Your task to perform on an android device: open a bookmark in the chrome app Image 0: 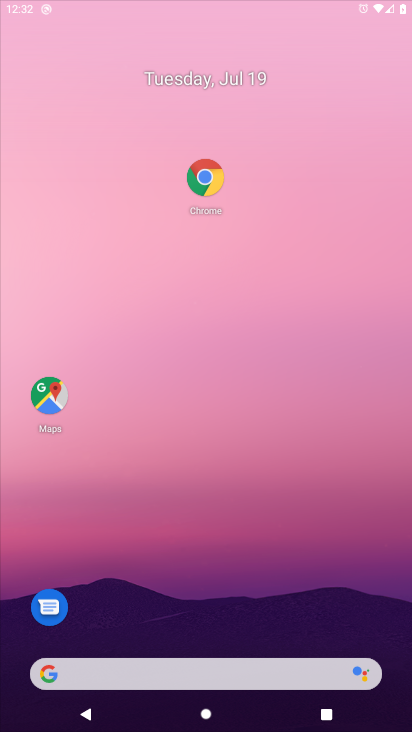
Step 0: click (128, 665)
Your task to perform on an android device: open a bookmark in the chrome app Image 1: 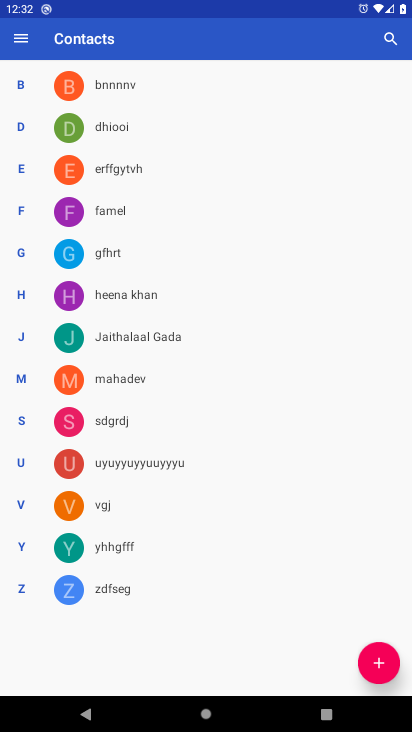
Step 1: press home button
Your task to perform on an android device: open a bookmark in the chrome app Image 2: 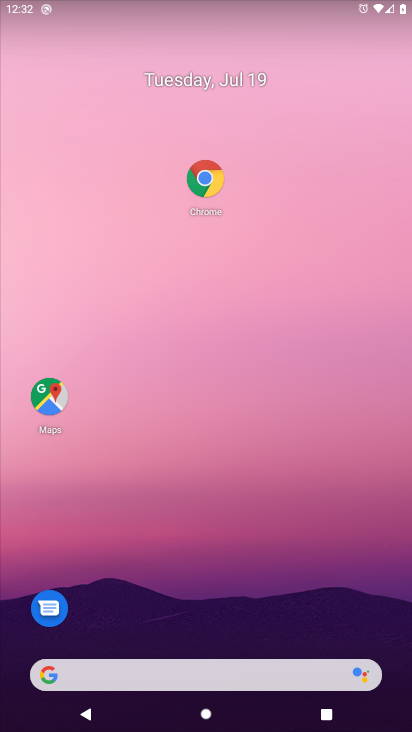
Step 2: click (202, 171)
Your task to perform on an android device: open a bookmark in the chrome app Image 3: 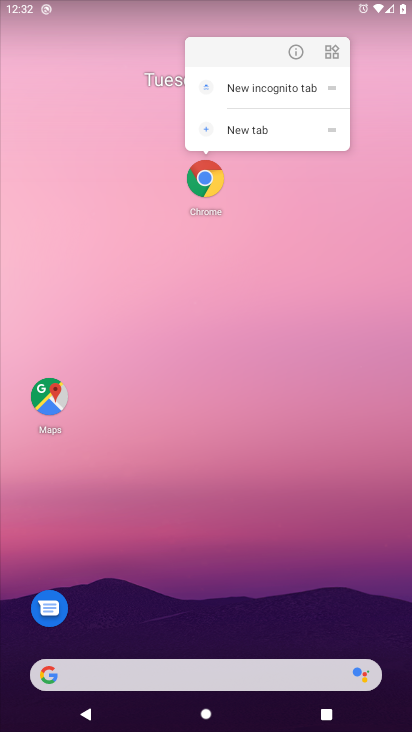
Step 3: click (197, 179)
Your task to perform on an android device: open a bookmark in the chrome app Image 4: 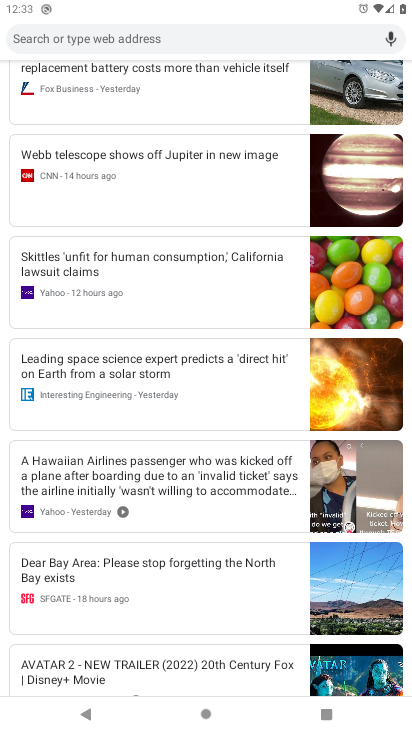
Step 4: click (88, 42)
Your task to perform on an android device: open a bookmark in the chrome app Image 5: 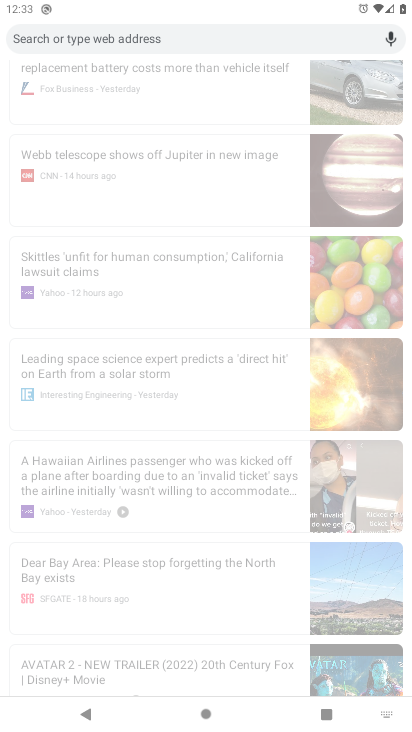
Step 5: press home button
Your task to perform on an android device: open a bookmark in the chrome app Image 6: 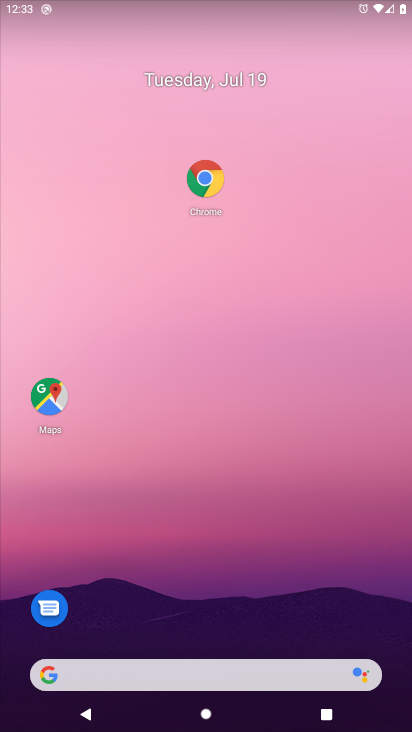
Step 6: click (195, 177)
Your task to perform on an android device: open a bookmark in the chrome app Image 7: 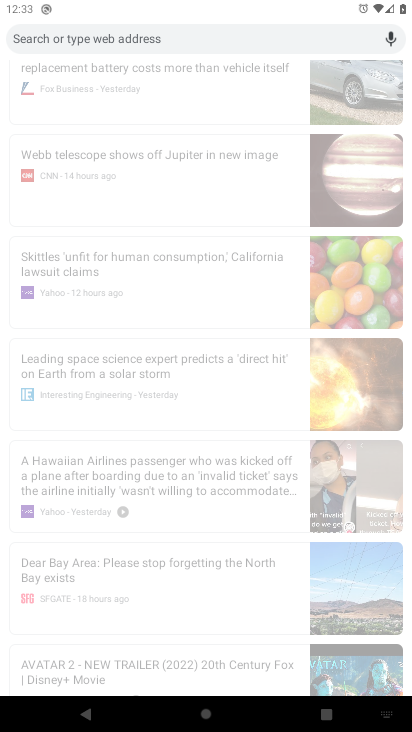
Step 7: task complete